Your task to perform on an android device: open app "Indeed Job Search" (install if not already installed) Image 0: 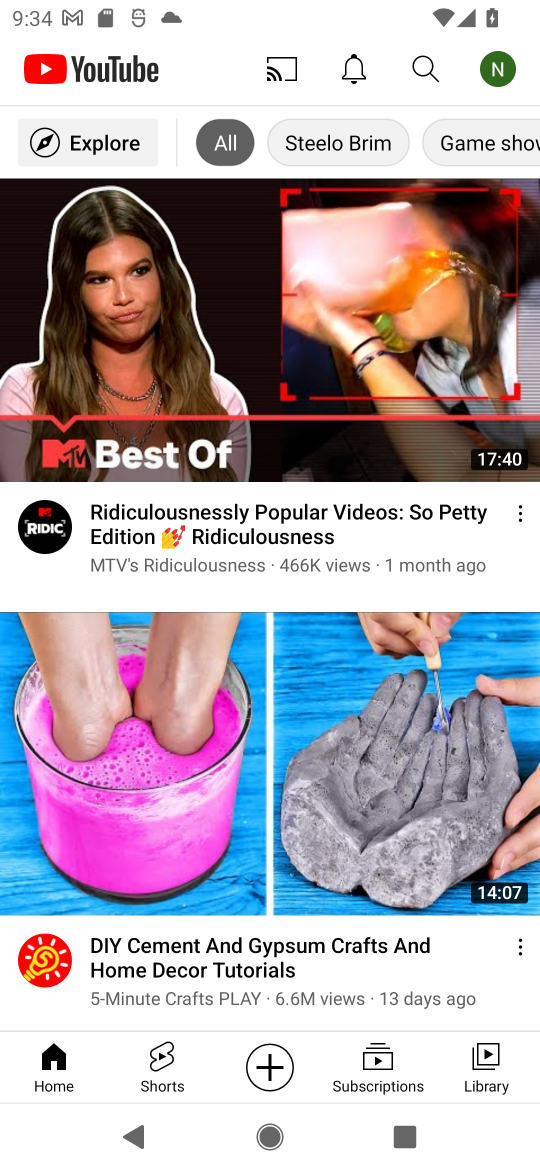
Step 0: press home button
Your task to perform on an android device: open app "Indeed Job Search" (install if not already installed) Image 1: 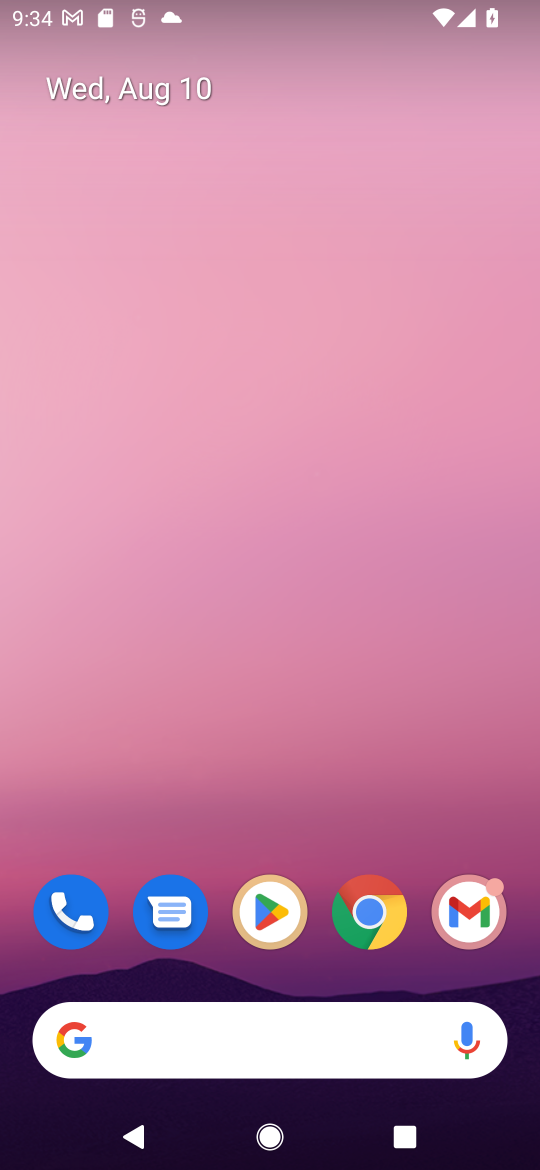
Step 1: drag from (496, 962) to (305, 92)
Your task to perform on an android device: open app "Indeed Job Search" (install if not already installed) Image 2: 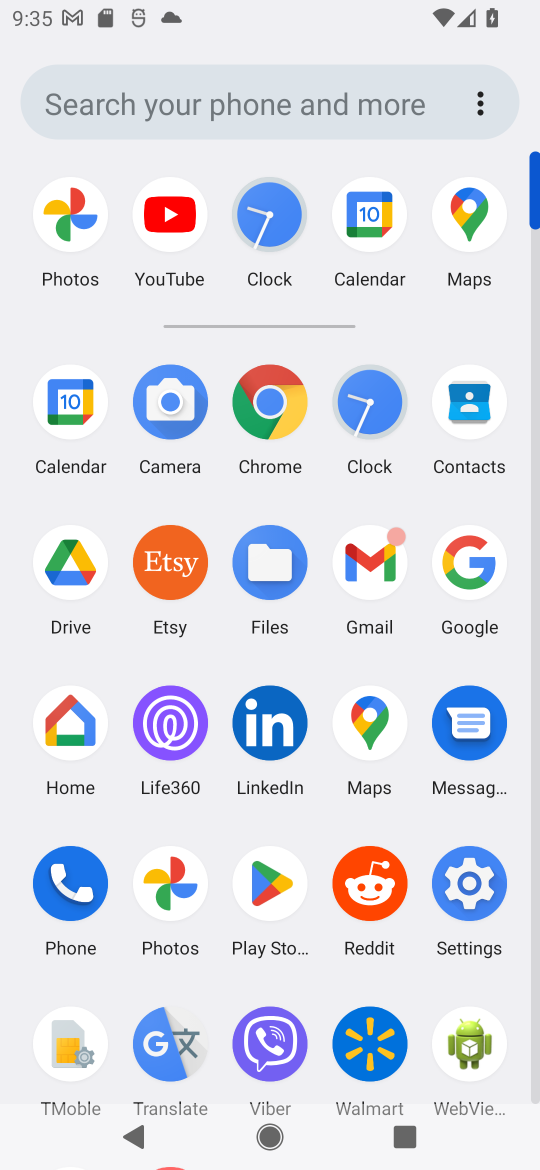
Step 2: click (244, 907)
Your task to perform on an android device: open app "Indeed Job Search" (install if not already installed) Image 3: 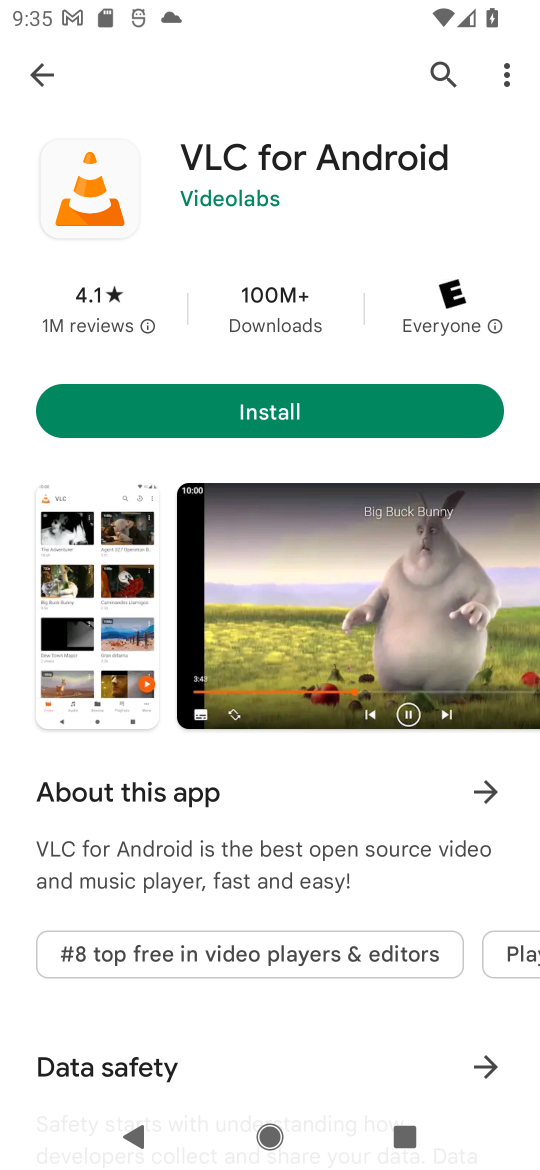
Step 3: press back button
Your task to perform on an android device: open app "Indeed Job Search" (install if not already installed) Image 4: 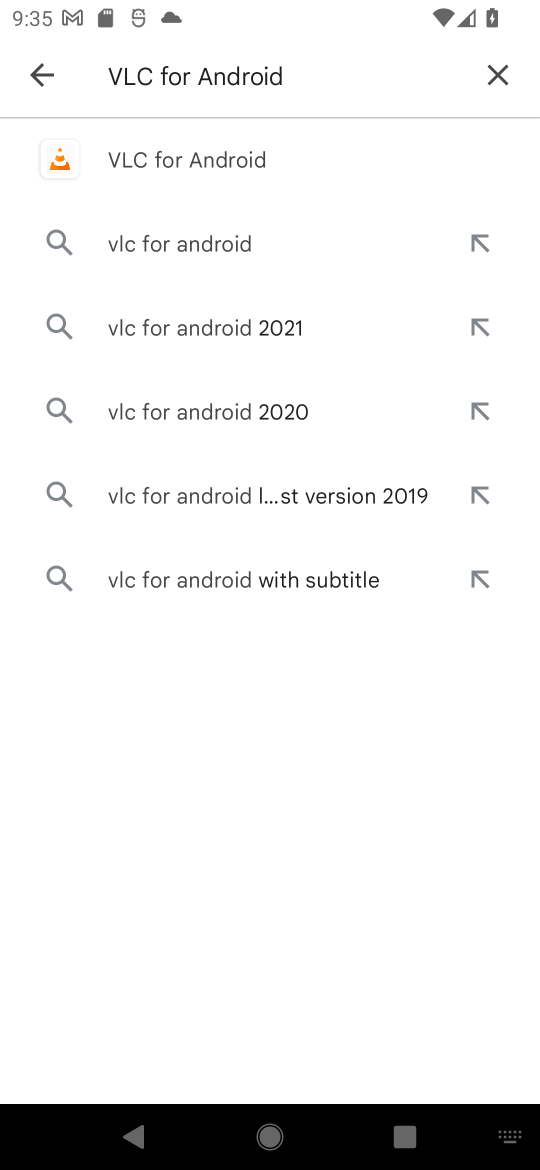
Step 4: press back button
Your task to perform on an android device: open app "Indeed Job Search" (install if not already installed) Image 5: 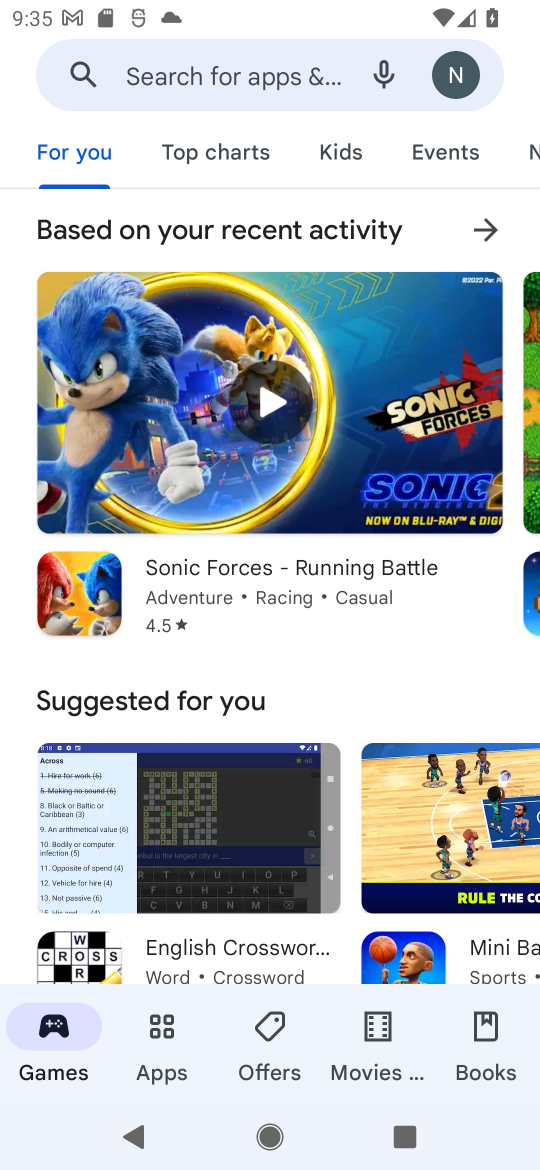
Step 5: click (210, 76)
Your task to perform on an android device: open app "Indeed Job Search" (install if not already installed) Image 6: 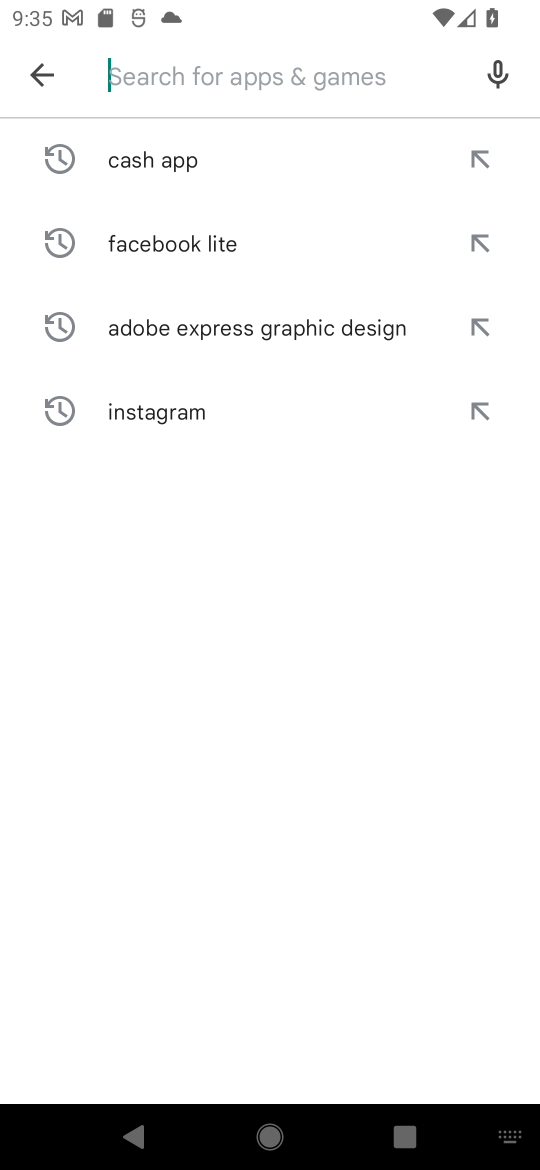
Step 6: type "Indeed Job Search"
Your task to perform on an android device: open app "Indeed Job Search" (install if not already installed) Image 7: 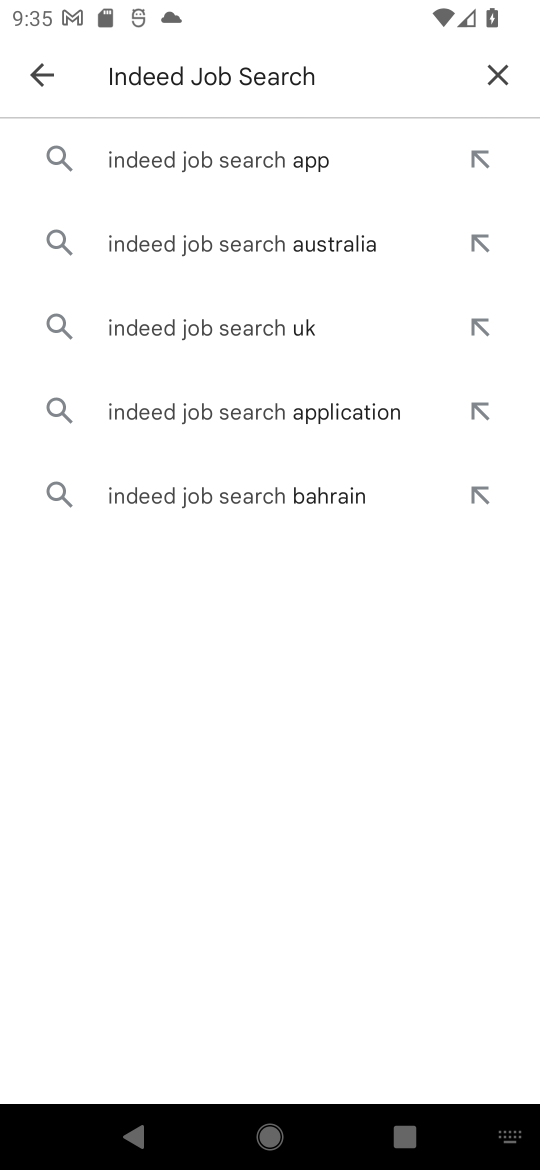
Step 7: click (247, 177)
Your task to perform on an android device: open app "Indeed Job Search" (install if not already installed) Image 8: 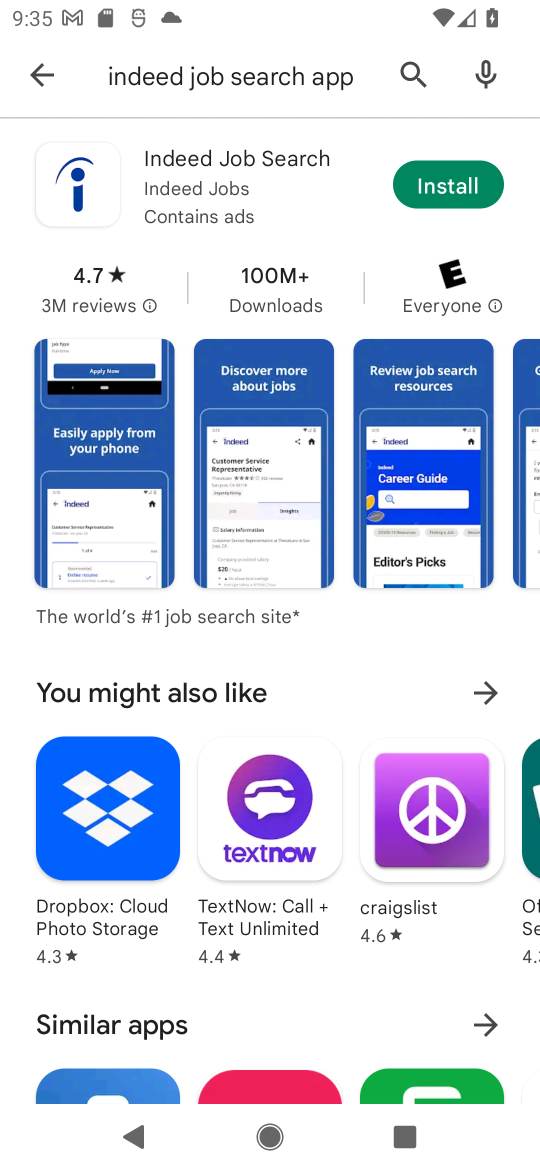
Step 8: task complete